Your task to perform on an android device: uninstall "Facebook Lite" Image 0: 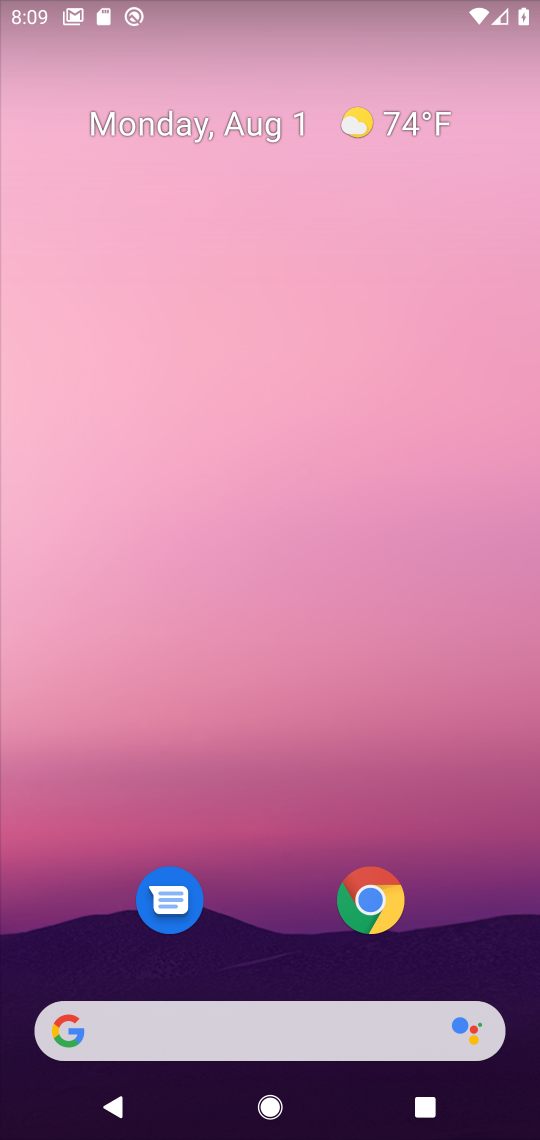
Step 0: drag from (250, 975) to (217, 8)
Your task to perform on an android device: uninstall "Facebook Lite" Image 1: 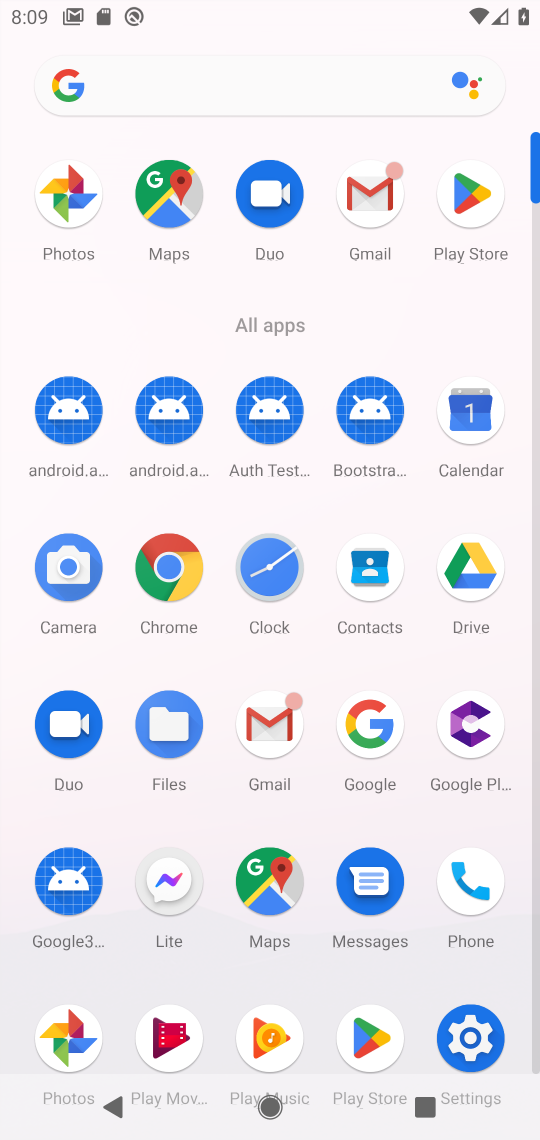
Step 1: click (357, 1036)
Your task to perform on an android device: uninstall "Facebook Lite" Image 2: 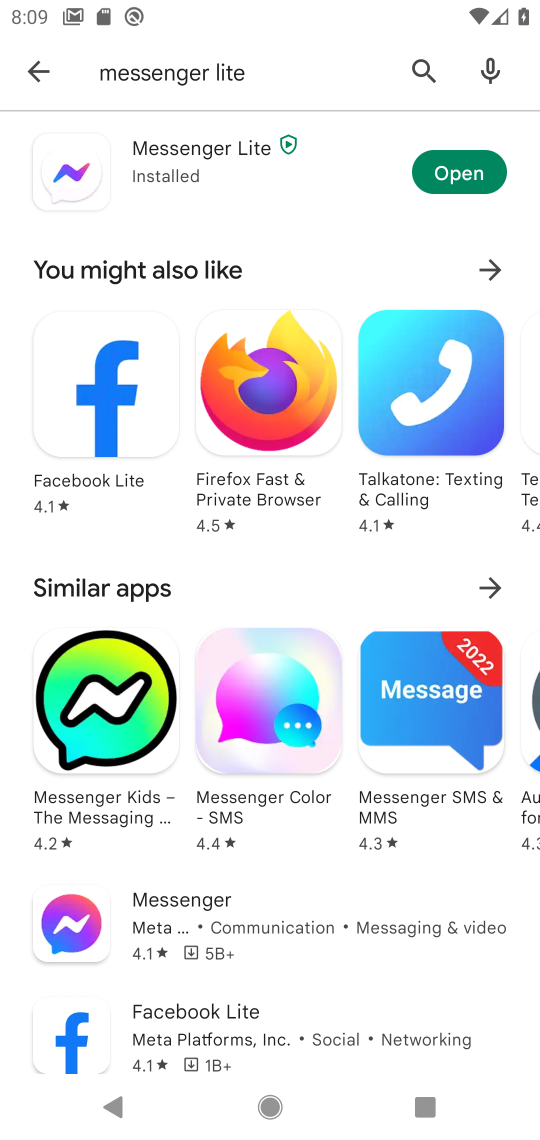
Step 2: click (28, 70)
Your task to perform on an android device: uninstall "Facebook Lite" Image 3: 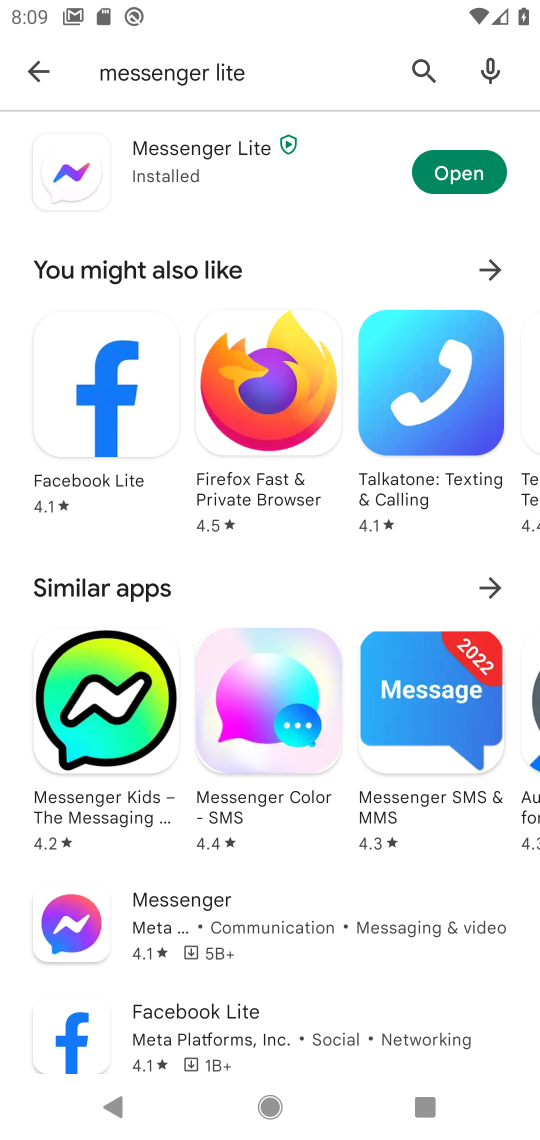
Step 3: click (15, 70)
Your task to perform on an android device: uninstall "Facebook Lite" Image 4: 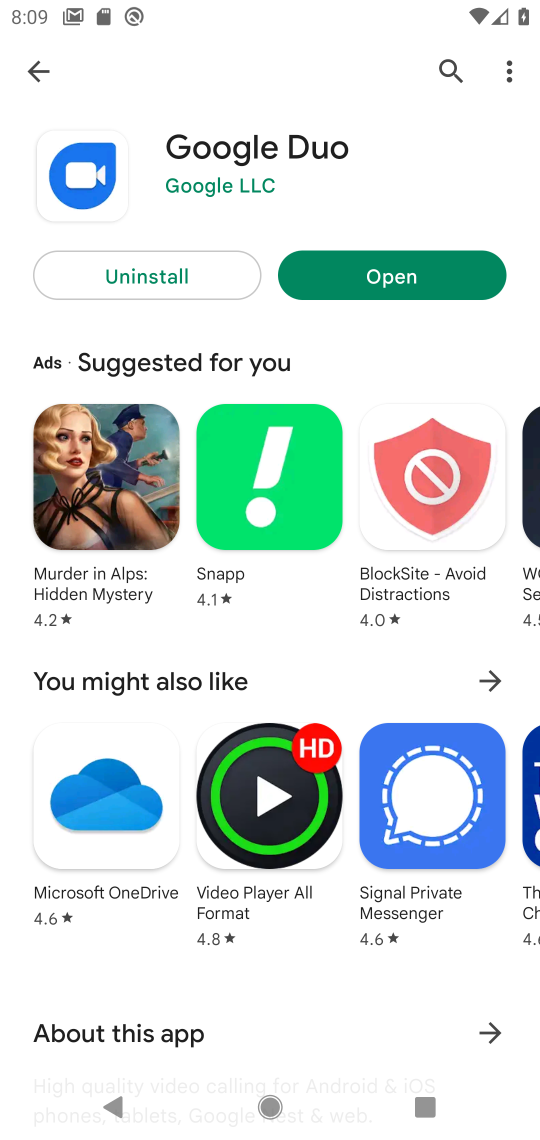
Step 4: click (22, 69)
Your task to perform on an android device: uninstall "Facebook Lite" Image 5: 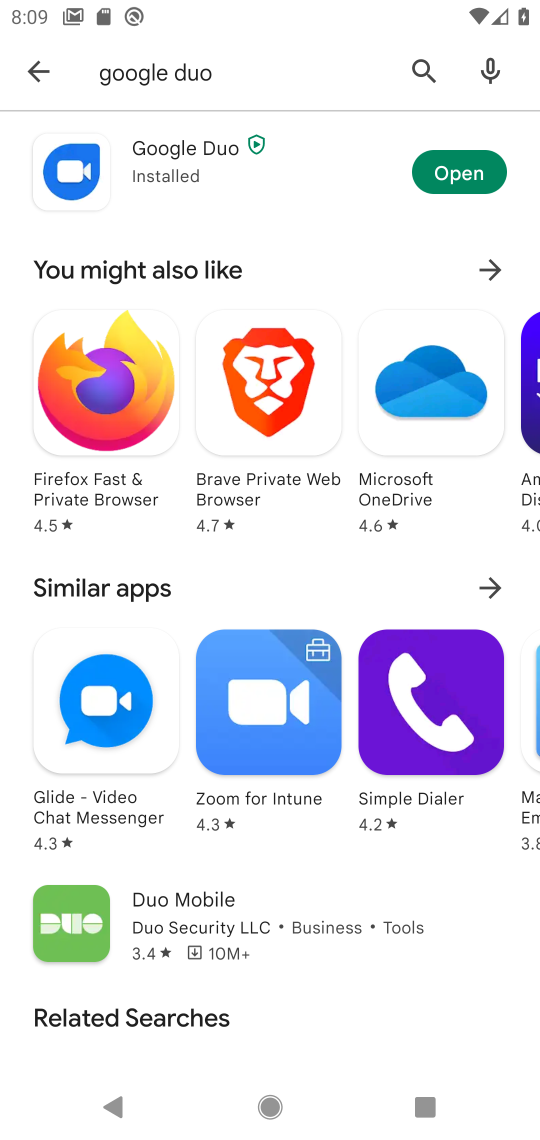
Step 5: click (431, 69)
Your task to perform on an android device: uninstall "Facebook Lite" Image 6: 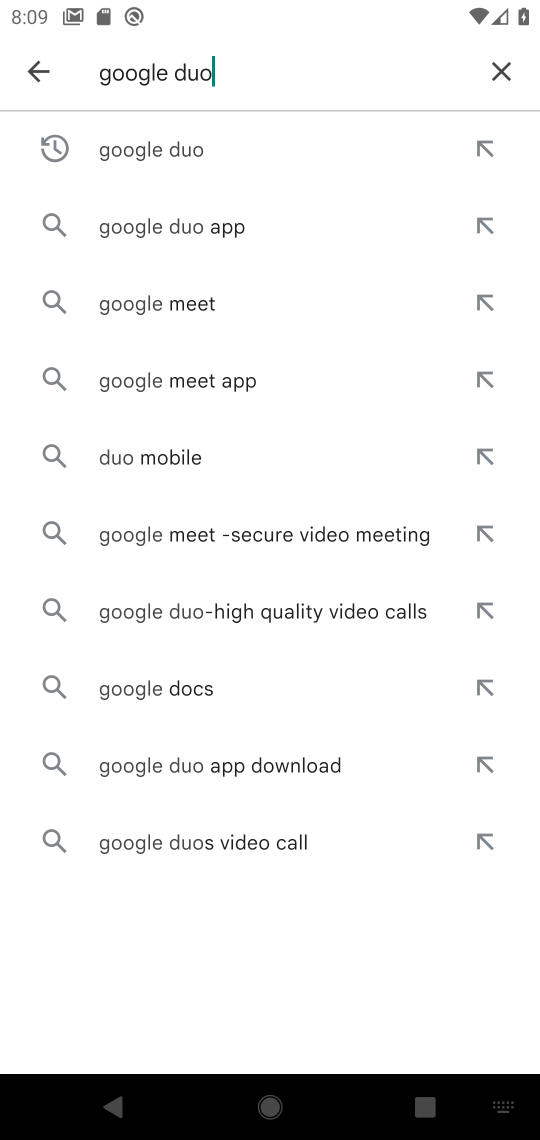
Step 6: click (493, 62)
Your task to perform on an android device: uninstall "Facebook Lite" Image 7: 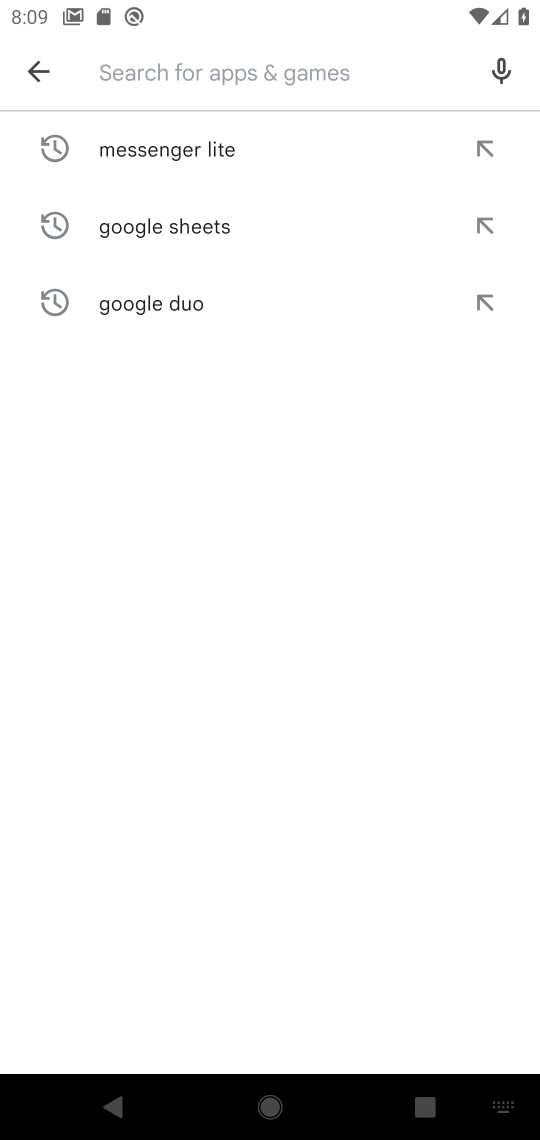
Step 7: type "Facebook Lite"
Your task to perform on an android device: uninstall "Facebook Lite" Image 8: 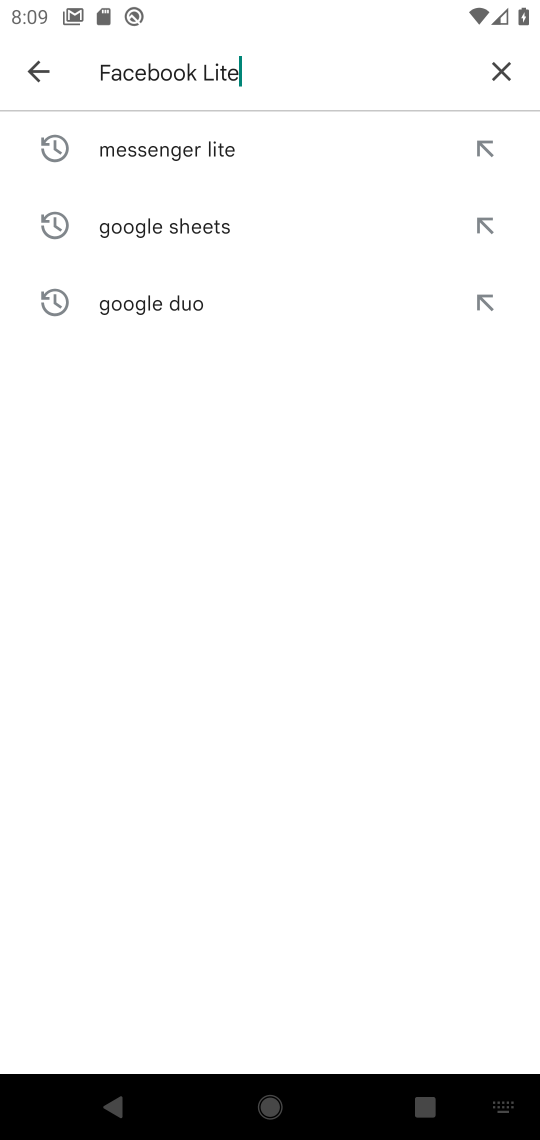
Step 8: type ""
Your task to perform on an android device: uninstall "Facebook Lite" Image 9: 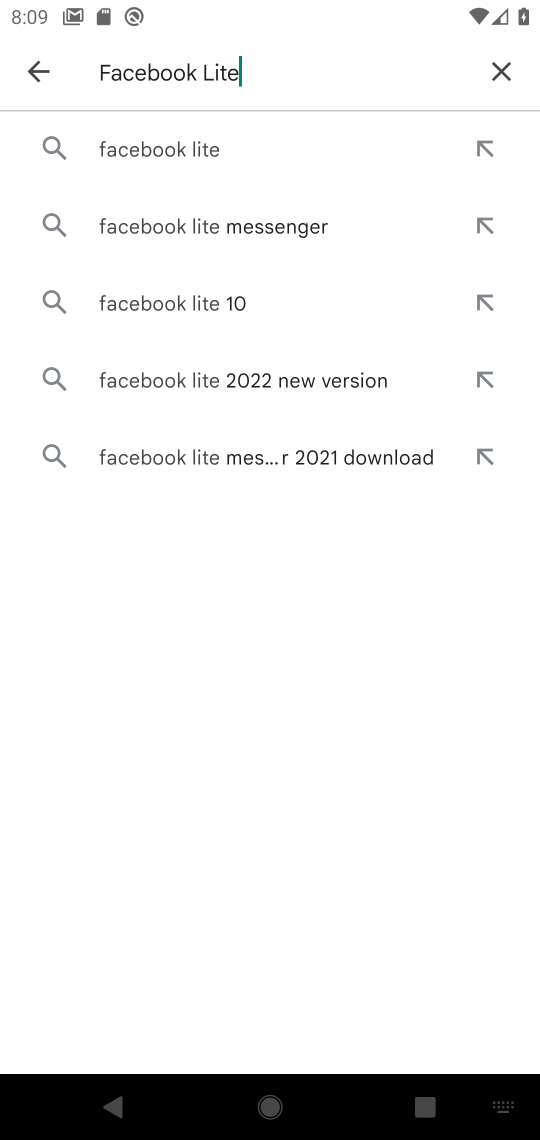
Step 9: click (182, 138)
Your task to perform on an android device: uninstall "Facebook Lite" Image 10: 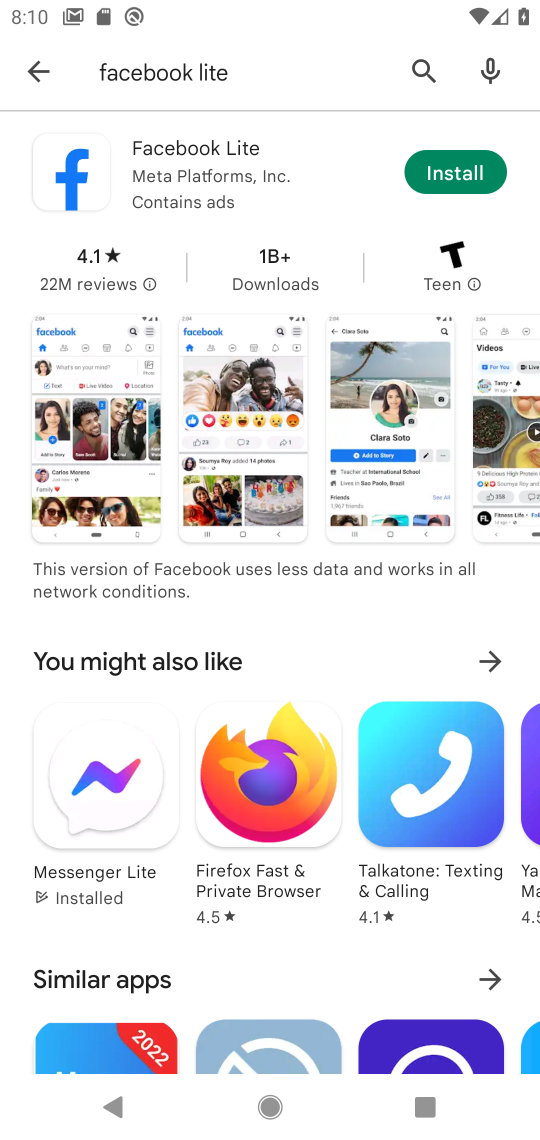
Step 10: task complete